Your task to perform on an android device: check data usage Image 0: 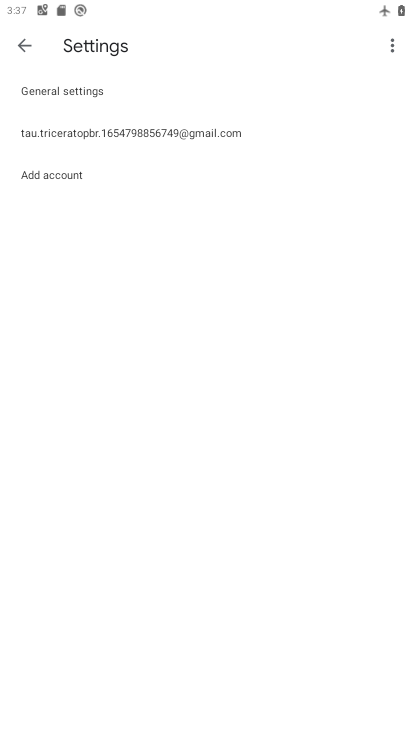
Step 0: press home button
Your task to perform on an android device: check data usage Image 1: 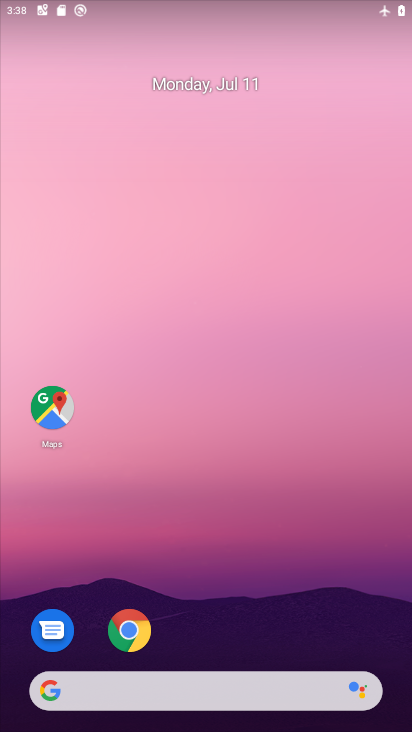
Step 1: drag from (313, 627) to (270, 7)
Your task to perform on an android device: check data usage Image 2: 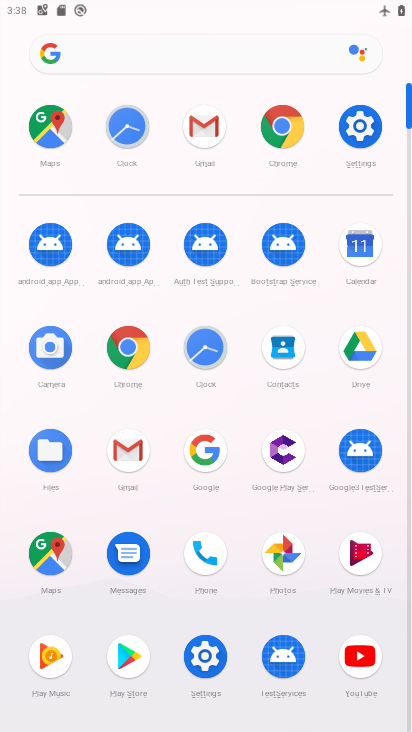
Step 2: click (351, 159)
Your task to perform on an android device: check data usage Image 3: 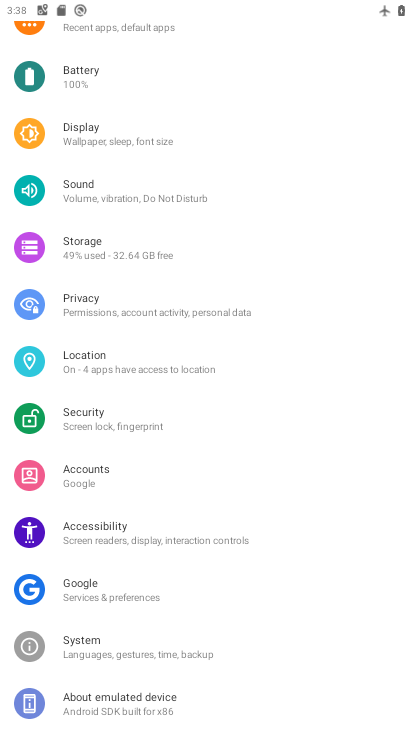
Step 3: drag from (180, 156) to (209, 241)
Your task to perform on an android device: check data usage Image 4: 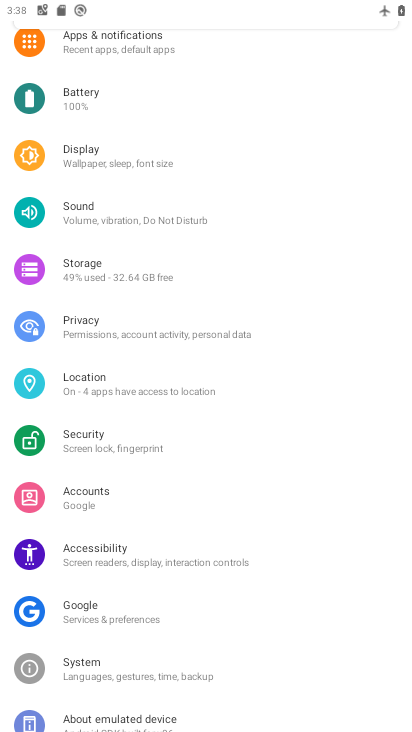
Step 4: click (208, 286)
Your task to perform on an android device: check data usage Image 5: 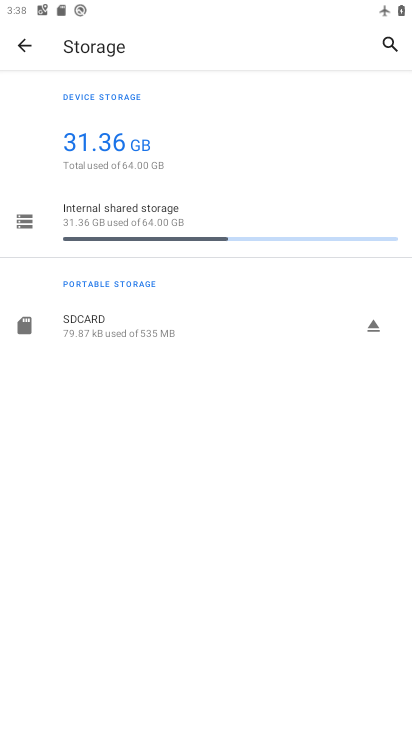
Step 5: task complete